Your task to perform on an android device: empty trash in google photos Image 0: 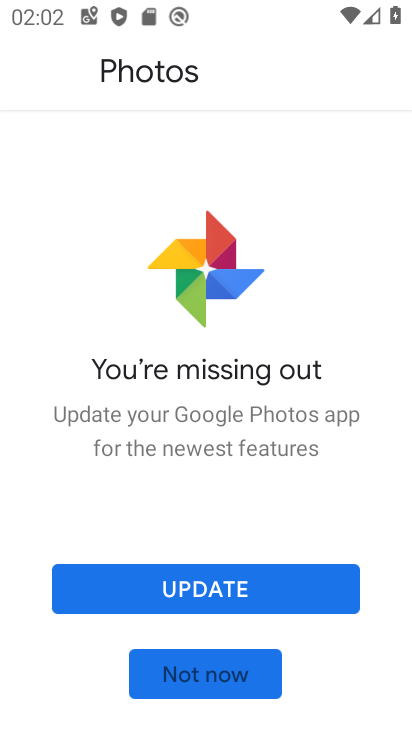
Step 0: press home button
Your task to perform on an android device: empty trash in google photos Image 1: 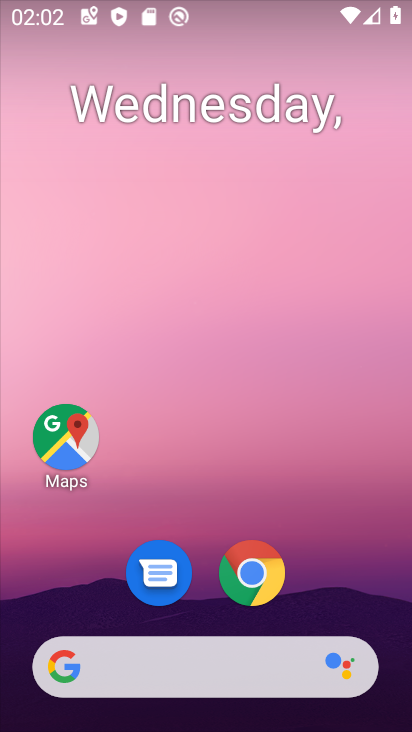
Step 1: drag from (344, 585) to (250, 22)
Your task to perform on an android device: empty trash in google photos Image 2: 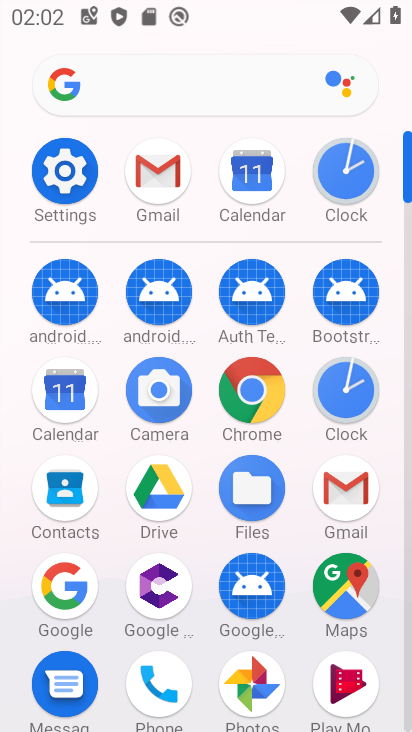
Step 2: drag from (105, 623) to (112, 383)
Your task to perform on an android device: empty trash in google photos Image 3: 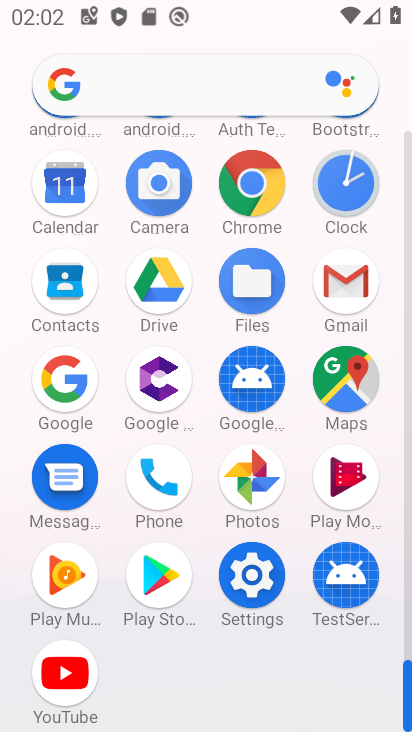
Step 3: click (255, 475)
Your task to perform on an android device: empty trash in google photos Image 4: 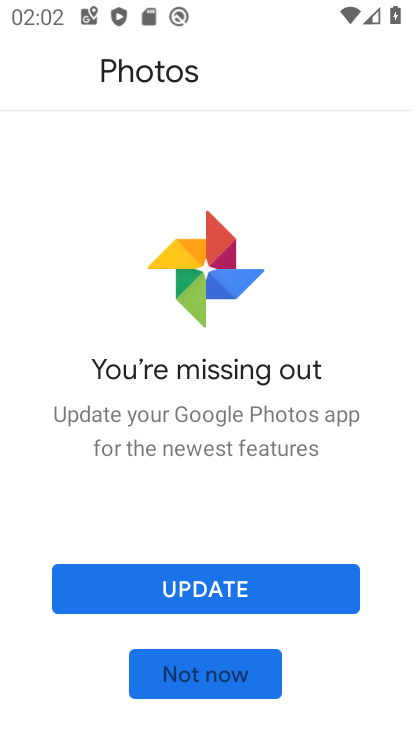
Step 4: click (226, 583)
Your task to perform on an android device: empty trash in google photos Image 5: 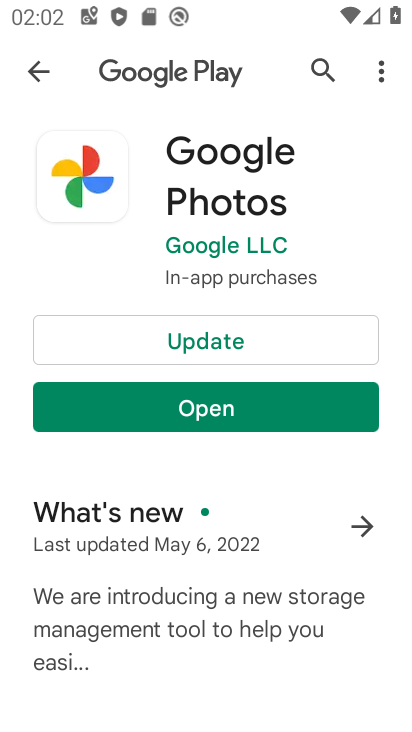
Step 5: click (182, 331)
Your task to perform on an android device: empty trash in google photos Image 6: 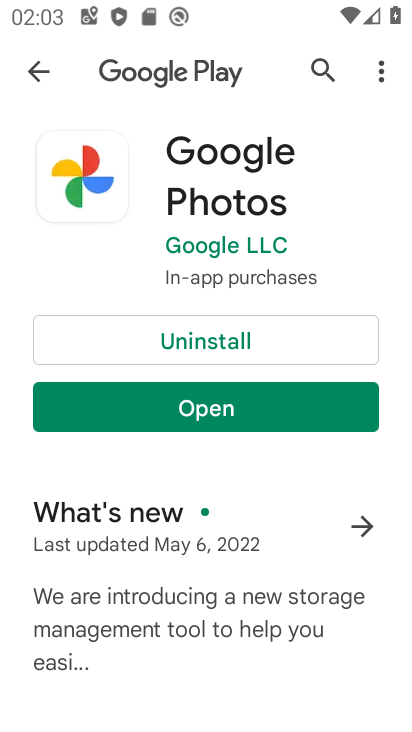
Step 6: click (200, 413)
Your task to perform on an android device: empty trash in google photos Image 7: 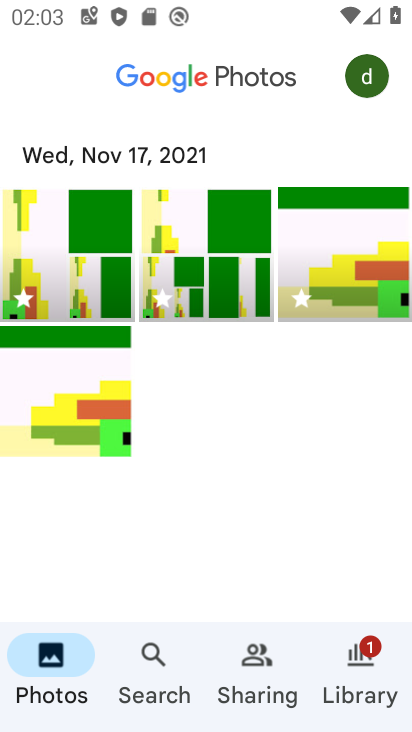
Step 7: click (361, 663)
Your task to perform on an android device: empty trash in google photos Image 8: 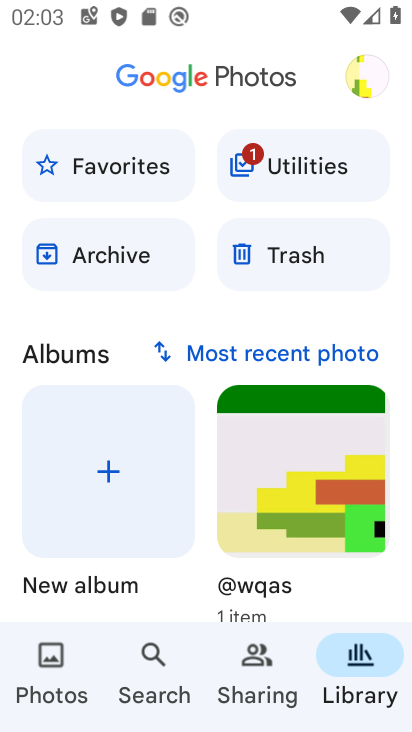
Step 8: click (298, 251)
Your task to perform on an android device: empty trash in google photos Image 9: 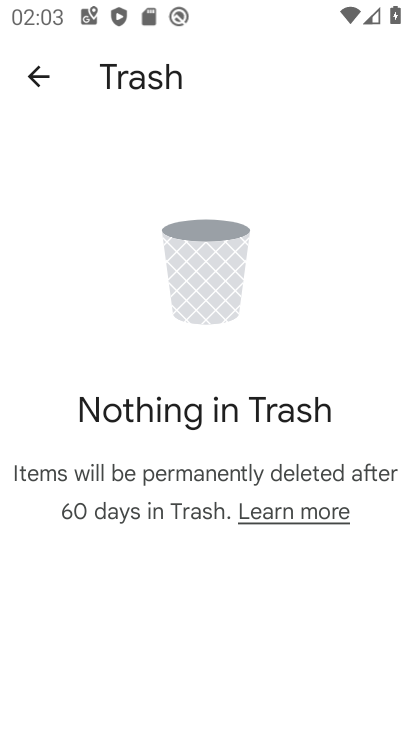
Step 9: task complete